Your task to perform on an android device: add a contact Image 0: 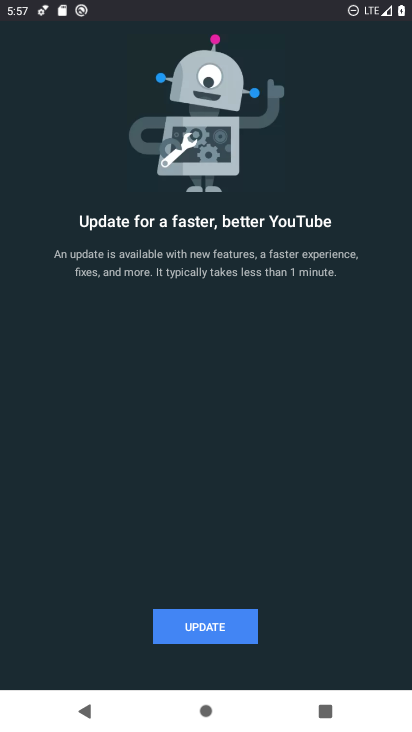
Step 0: press home button
Your task to perform on an android device: add a contact Image 1: 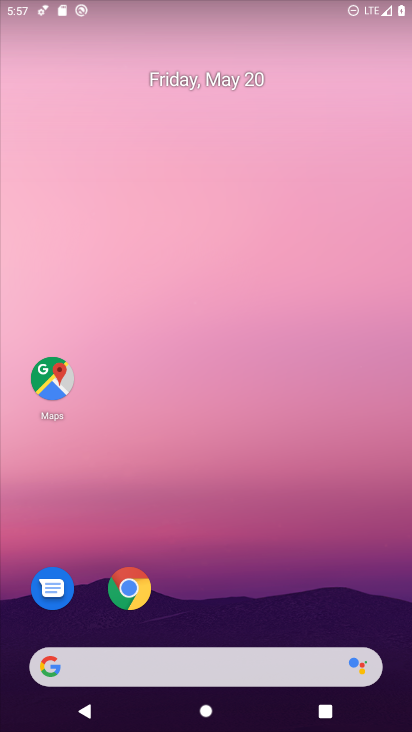
Step 1: drag from (229, 617) to (281, 84)
Your task to perform on an android device: add a contact Image 2: 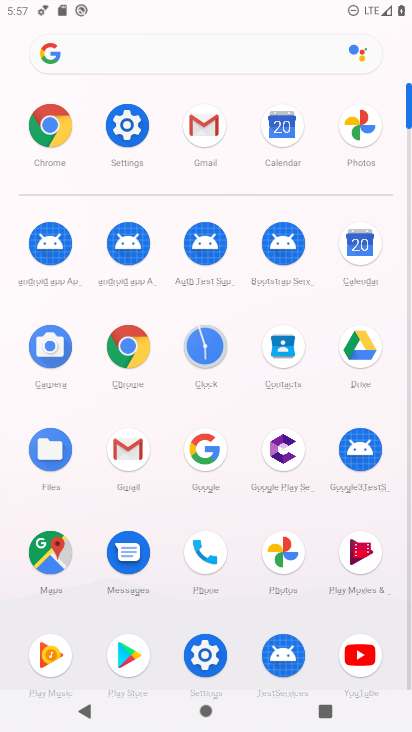
Step 2: click (285, 355)
Your task to perform on an android device: add a contact Image 3: 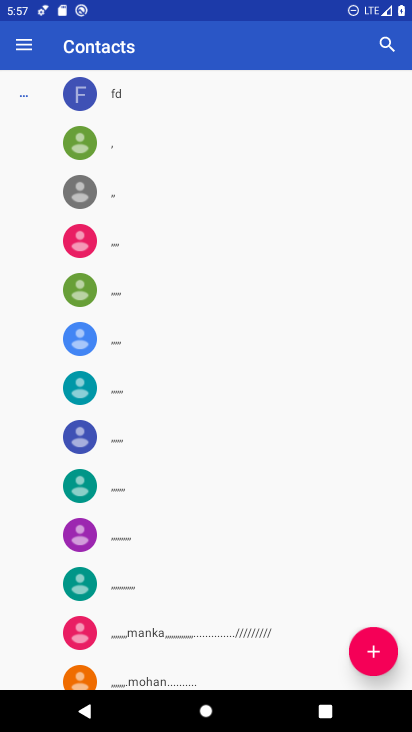
Step 3: click (368, 653)
Your task to perform on an android device: add a contact Image 4: 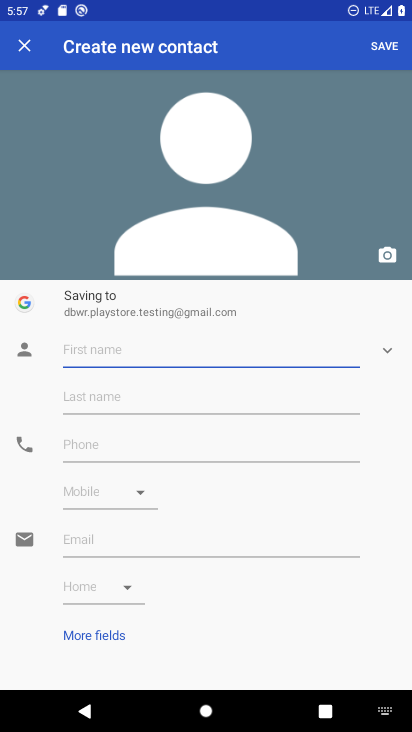
Step 4: click (131, 336)
Your task to perform on an android device: add a contact Image 5: 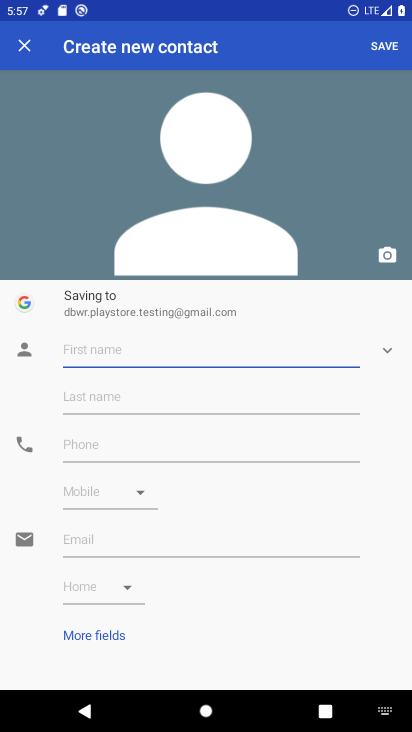
Step 5: type "Banno"
Your task to perform on an android device: add a contact Image 6: 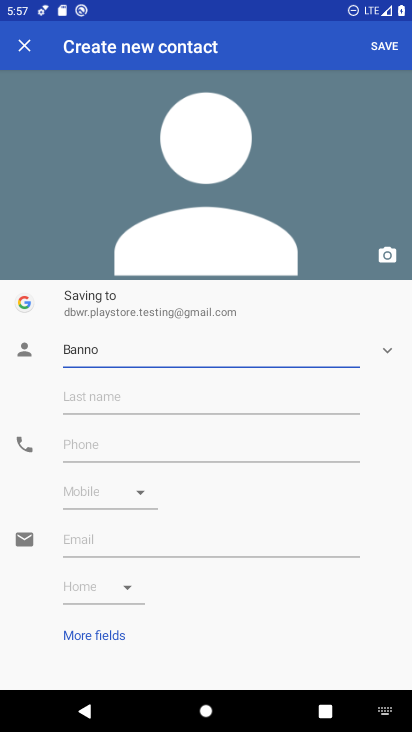
Step 6: click (148, 396)
Your task to perform on an android device: add a contact Image 7: 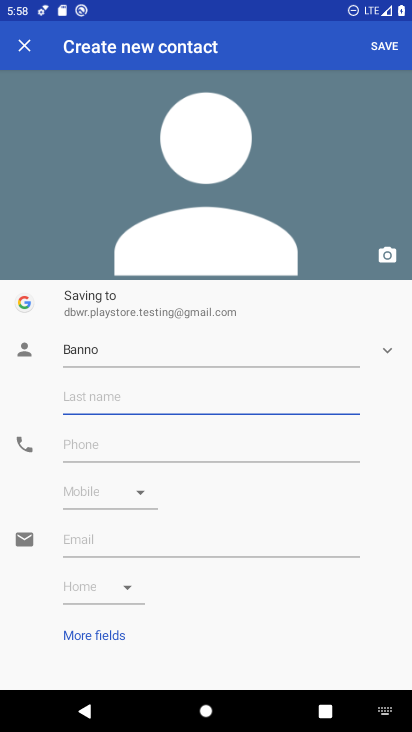
Step 7: type "quazi"
Your task to perform on an android device: add a contact Image 8: 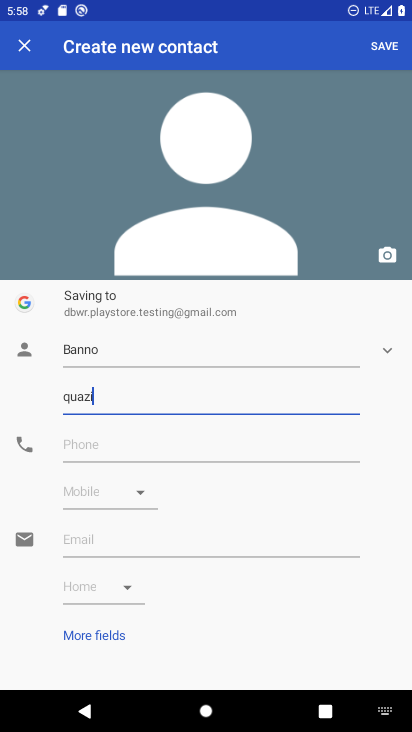
Step 8: click (137, 447)
Your task to perform on an android device: add a contact Image 9: 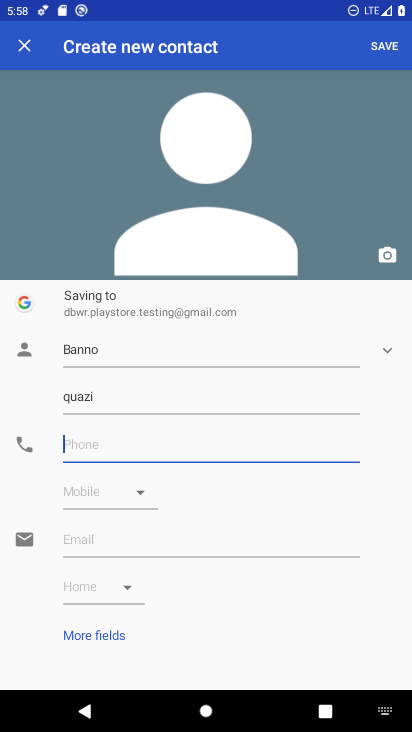
Step 9: type "9898989898"
Your task to perform on an android device: add a contact Image 10: 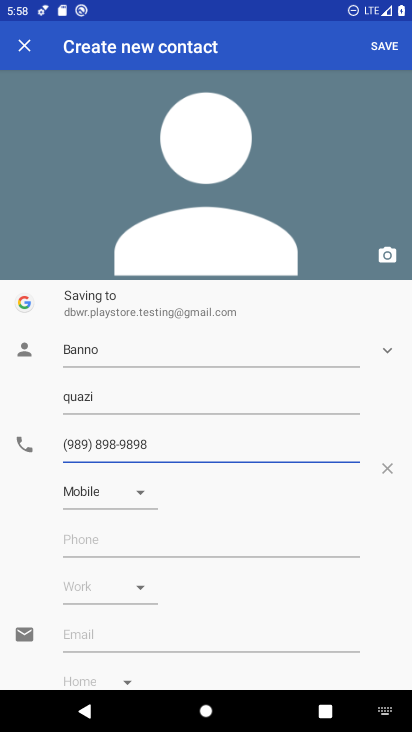
Step 10: click (391, 40)
Your task to perform on an android device: add a contact Image 11: 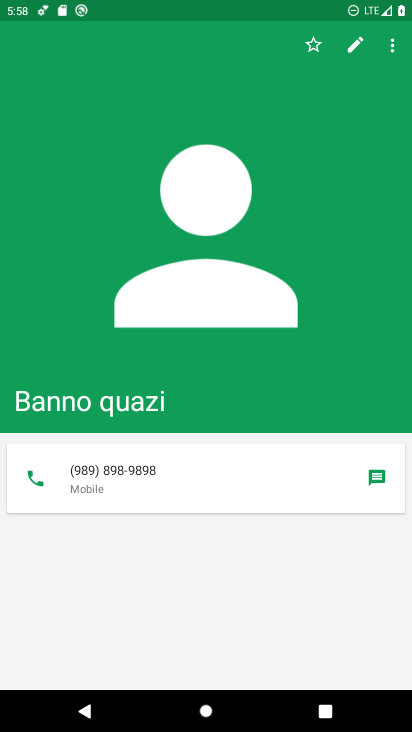
Step 11: task complete